Your task to perform on an android device: add a contact in the contacts app Image 0: 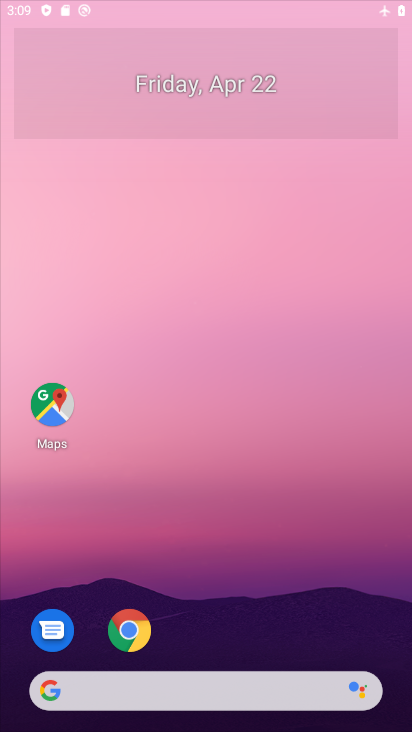
Step 0: click (328, 218)
Your task to perform on an android device: add a contact in the contacts app Image 1: 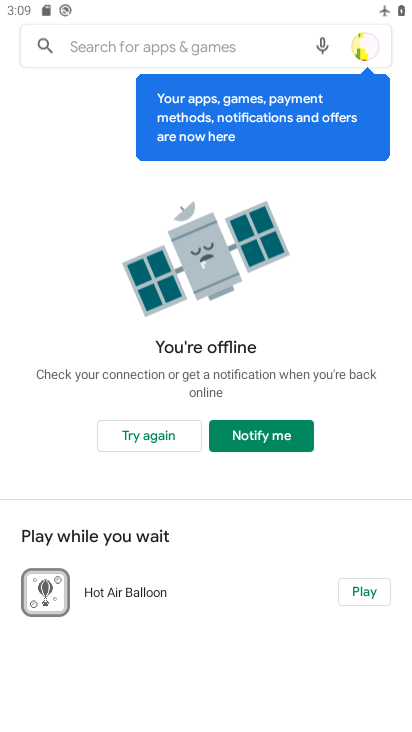
Step 1: press home button
Your task to perform on an android device: add a contact in the contacts app Image 2: 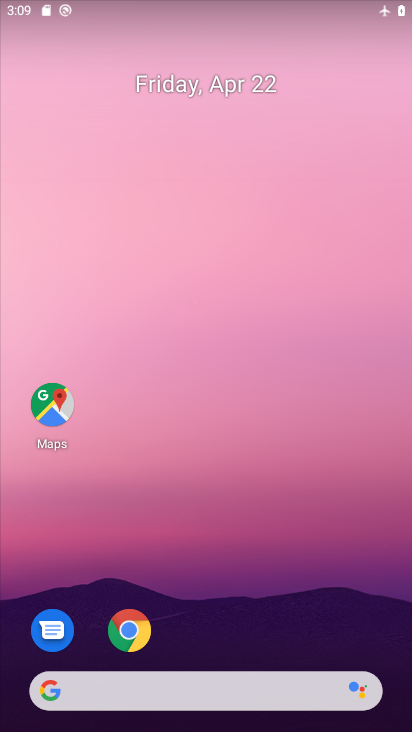
Step 2: drag from (172, 638) to (226, 18)
Your task to perform on an android device: add a contact in the contacts app Image 3: 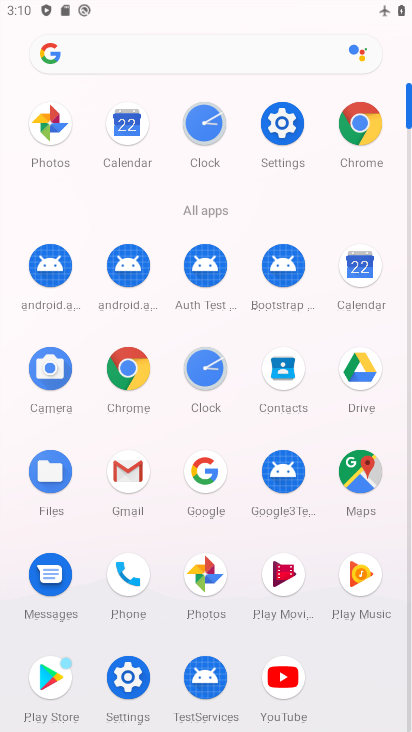
Step 3: click (284, 382)
Your task to perform on an android device: add a contact in the contacts app Image 4: 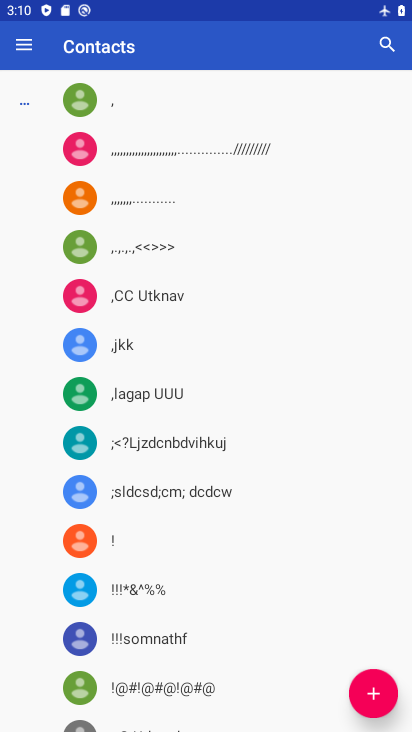
Step 4: click (374, 681)
Your task to perform on an android device: add a contact in the contacts app Image 5: 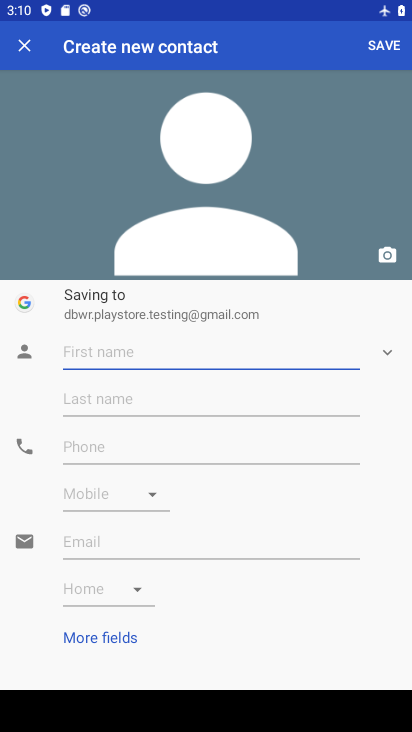
Step 5: type "serenity"
Your task to perform on an android device: add a contact in the contacts app Image 6: 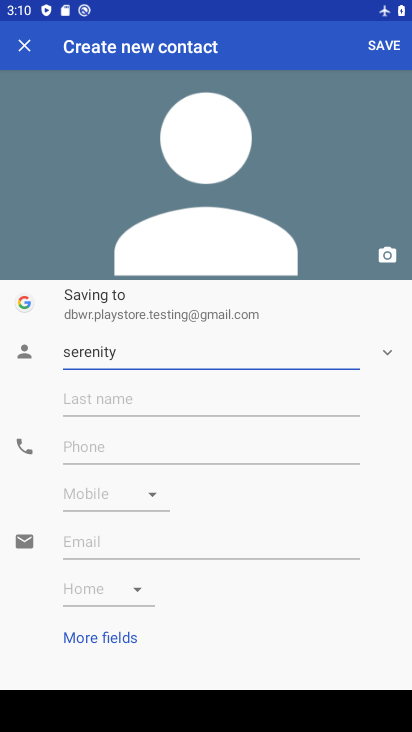
Step 6: click (368, 40)
Your task to perform on an android device: add a contact in the contacts app Image 7: 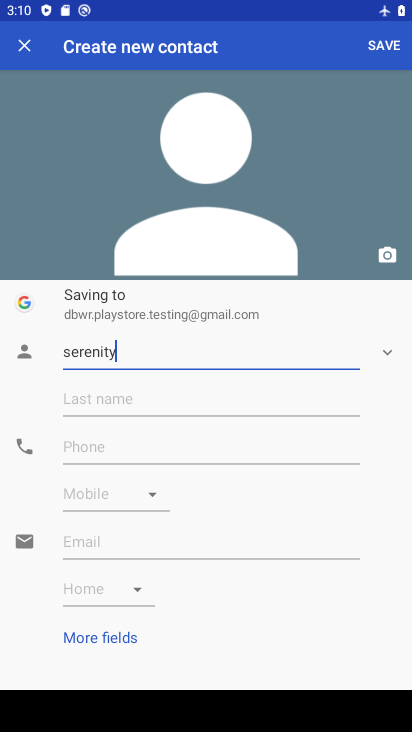
Step 7: click (368, 40)
Your task to perform on an android device: add a contact in the contacts app Image 8: 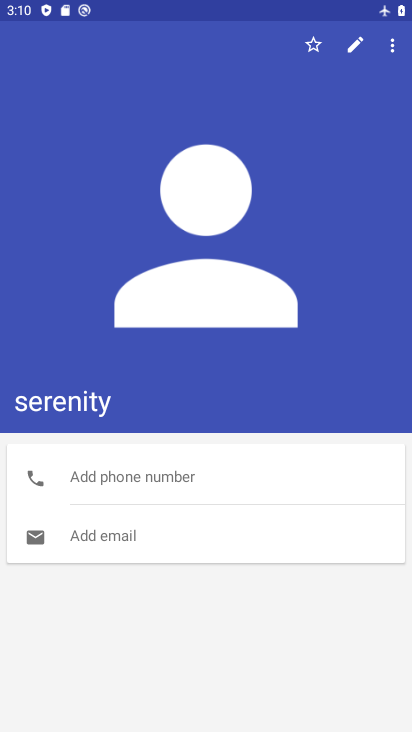
Step 8: task complete